Your task to perform on an android device: change text size in settings app Image 0: 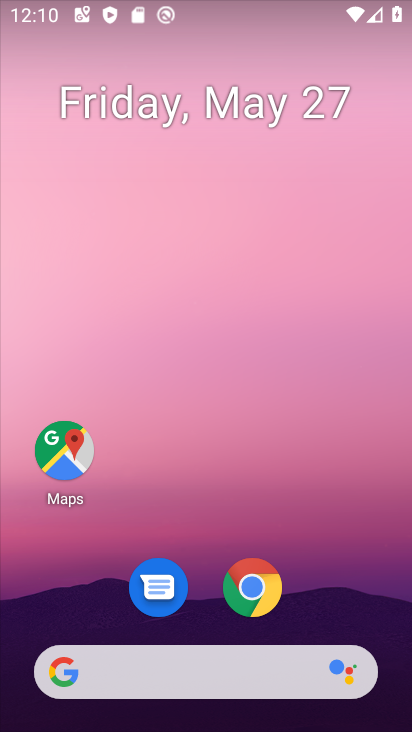
Step 0: drag from (104, 728) to (83, 177)
Your task to perform on an android device: change text size in settings app Image 1: 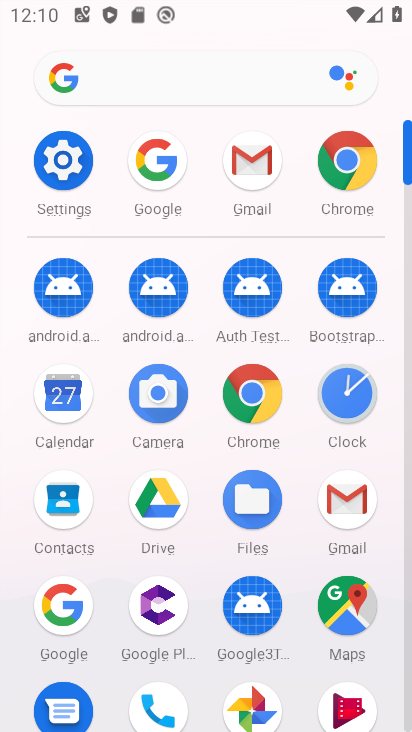
Step 1: click (53, 163)
Your task to perform on an android device: change text size in settings app Image 2: 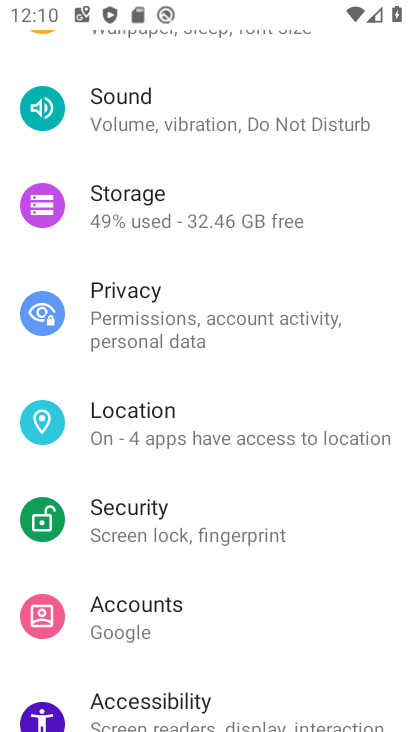
Step 2: drag from (329, 574) to (317, 241)
Your task to perform on an android device: change text size in settings app Image 3: 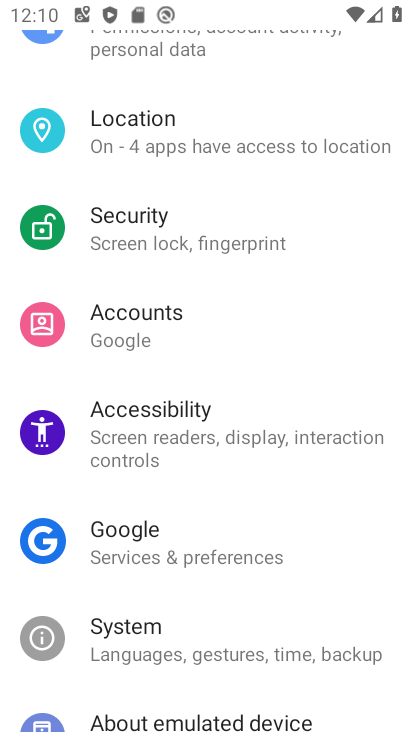
Step 3: drag from (272, 247) to (277, 684)
Your task to perform on an android device: change text size in settings app Image 4: 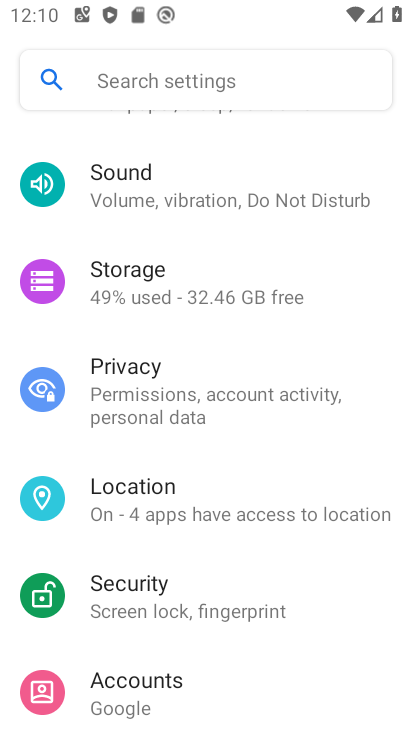
Step 4: drag from (269, 287) to (281, 560)
Your task to perform on an android device: change text size in settings app Image 5: 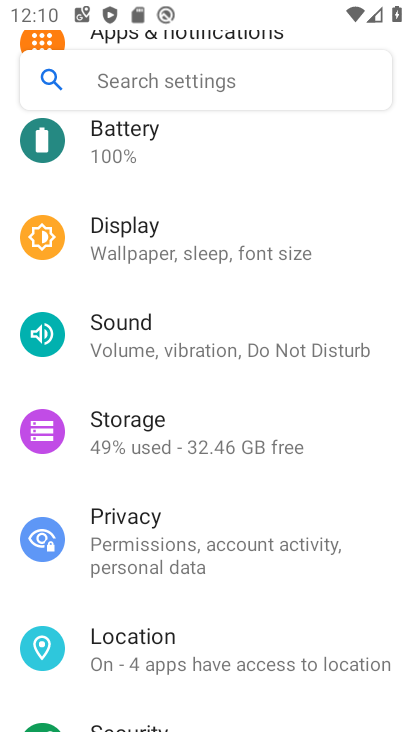
Step 5: drag from (299, 207) to (294, 327)
Your task to perform on an android device: change text size in settings app Image 6: 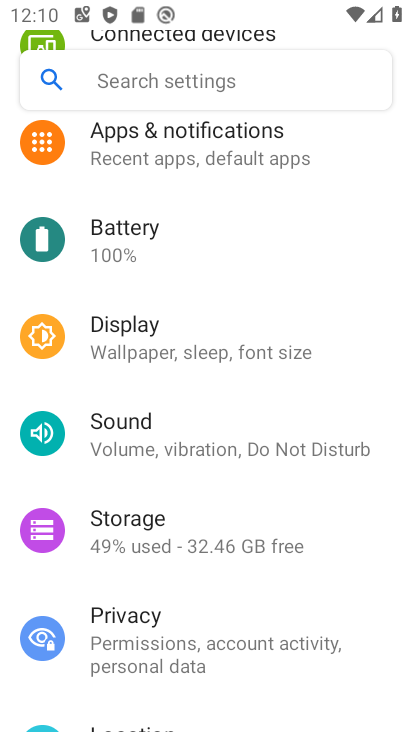
Step 6: click (276, 351)
Your task to perform on an android device: change text size in settings app Image 7: 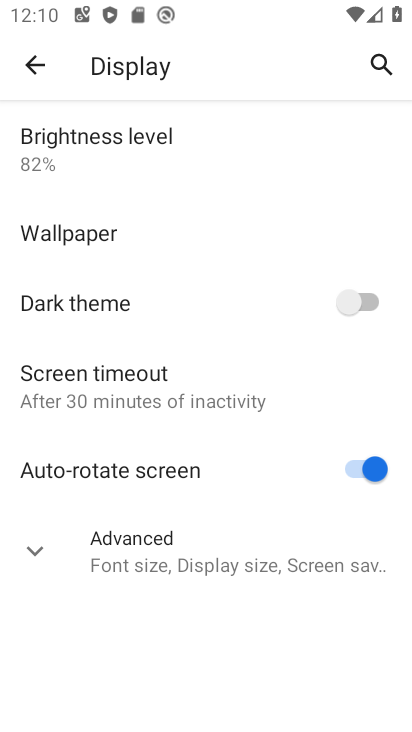
Step 7: click (164, 562)
Your task to perform on an android device: change text size in settings app Image 8: 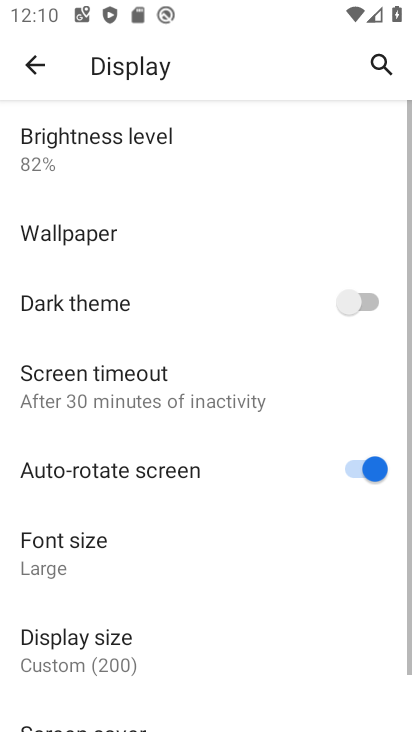
Step 8: drag from (226, 630) to (239, 487)
Your task to perform on an android device: change text size in settings app Image 9: 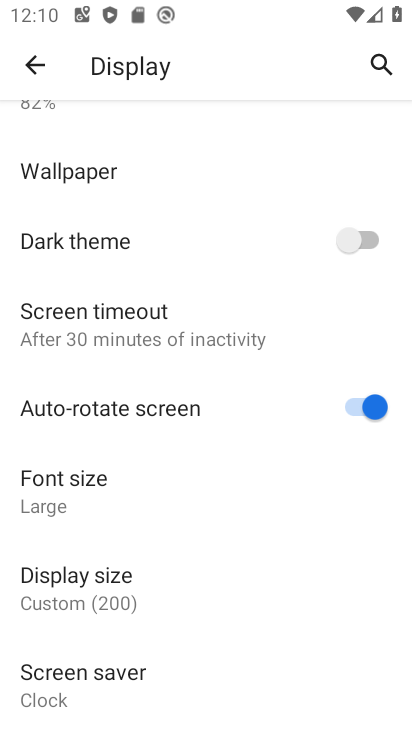
Step 9: click (31, 499)
Your task to perform on an android device: change text size in settings app Image 10: 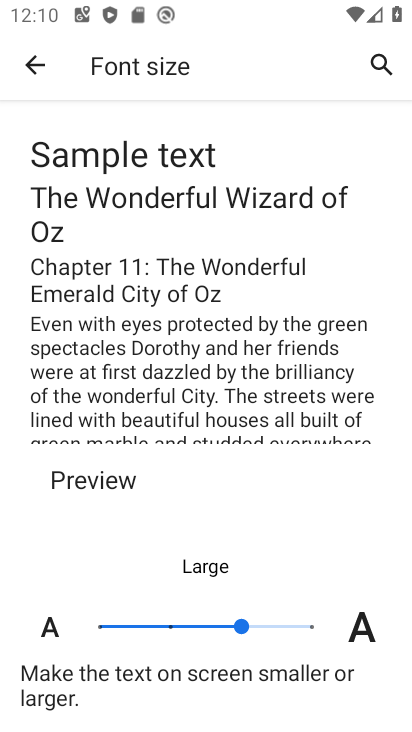
Step 10: click (170, 625)
Your task to perform on an android device: change text size in settings app Image 11: 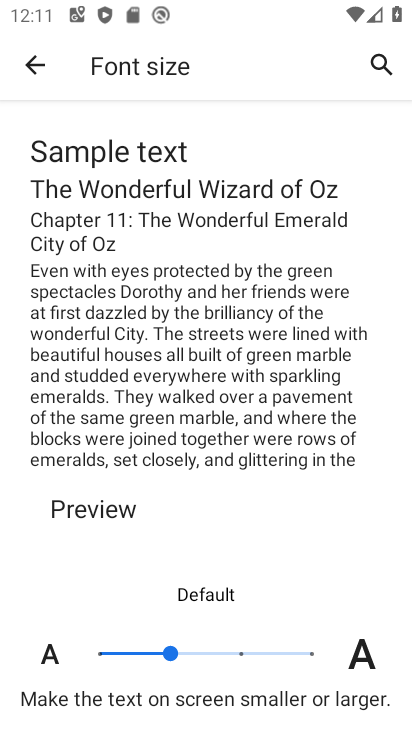
Step 11: task complete